Your task to perform on an android device: Go to accessibility settings Image 0: 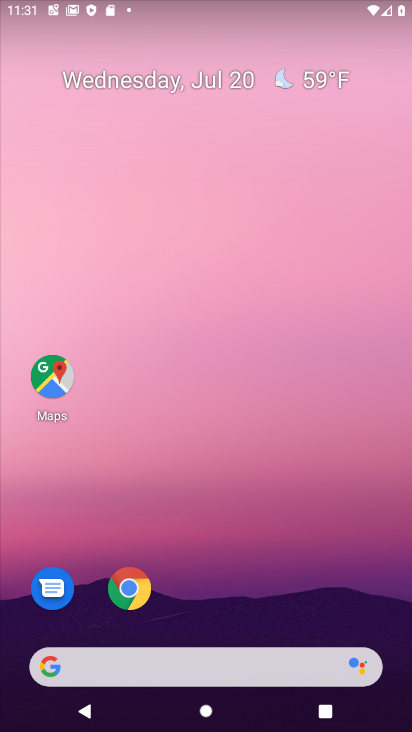
Step 0: drag from (278, 599) to (289, 8)
Your task to perform on an android device: Go to accessibility settings Image 1: 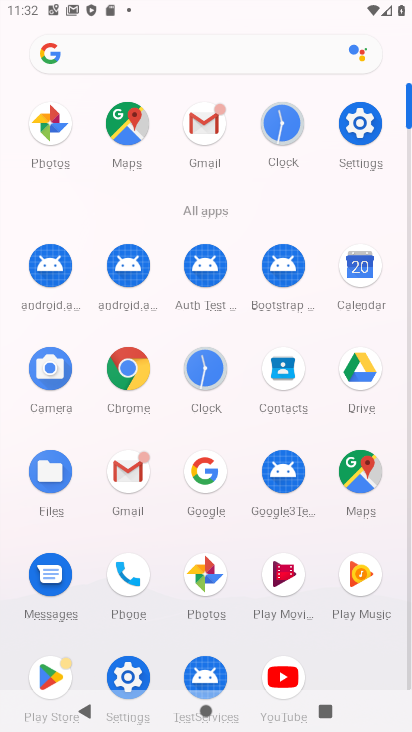
Step 1: click (359, 165)
Your task to perform on an android device: Go to accessibility settings Image 2: 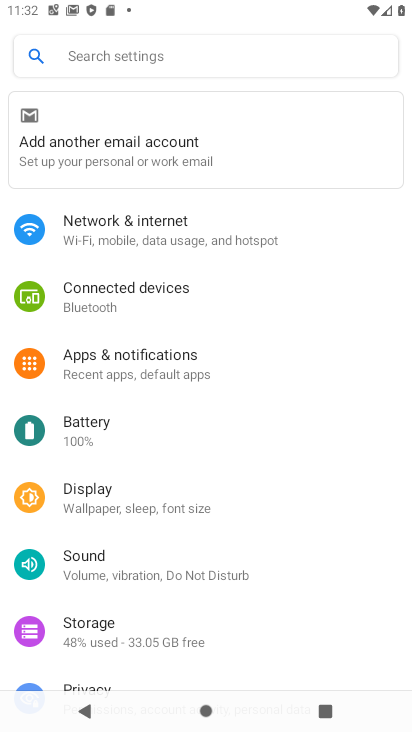
Step 2: drag from (120, 292) to (126, 141)
Your task to perform on an android device: Go to accessibility settings Image 3: 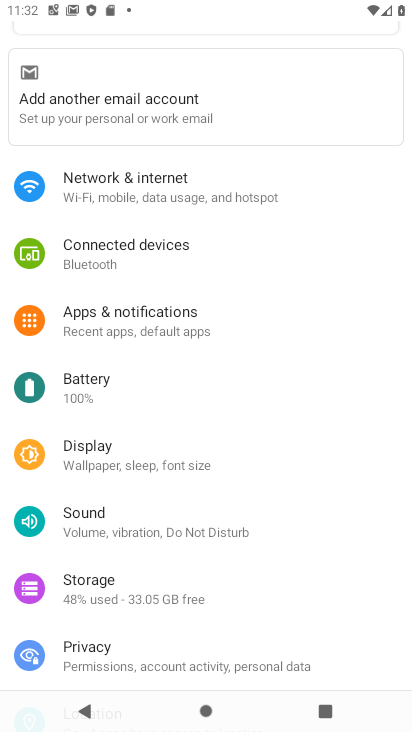
Step 3: drag from (185, 646) to (112, 162)
Your task to perform on an android device: Go to accessibility settings Image 4: 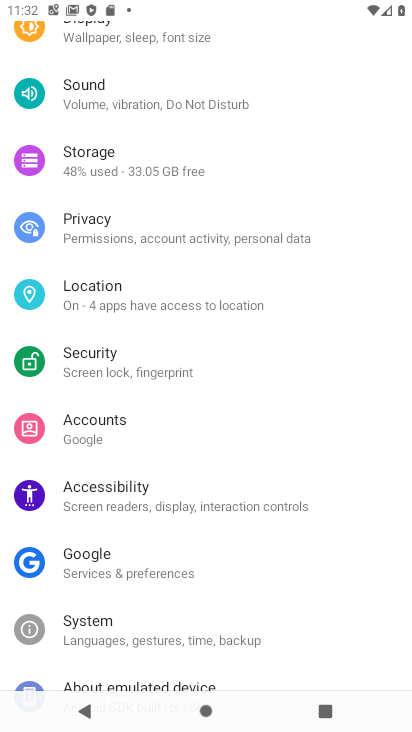
Step 4: click (115, 506)
Your task to perform on an android device: Go to accessibility settings Image 5: 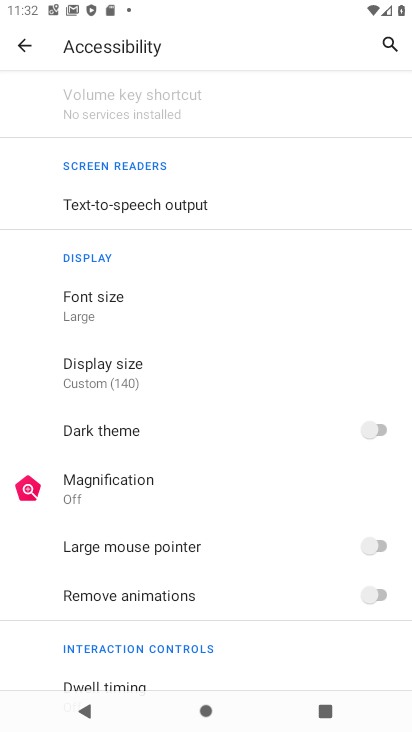
Step 5: task complete